Your task to perform on an android device: turn pop-ups off in chrome Image 0: 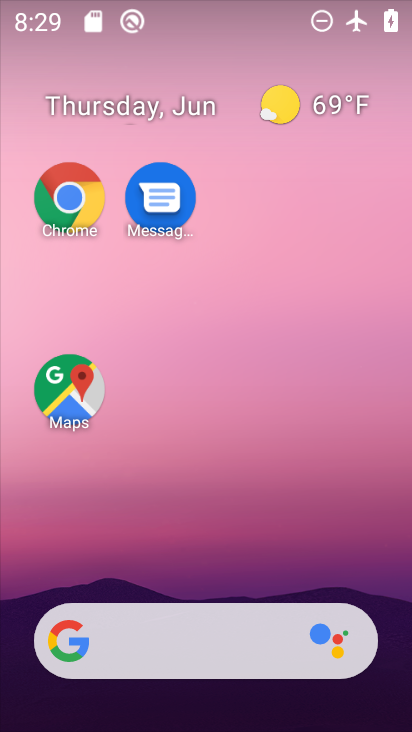
Step 0: drag from (230, 593) to (202, 114)
Your task to perform on an android device: turn pop-ups off in chrome Image 1: 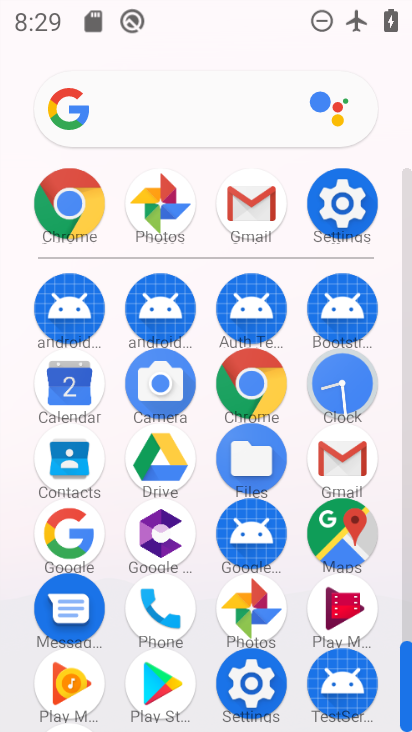
Step 1: click (49, 199)
Your task to perform on an android device: turn pop-ups off in chrome Image 2: 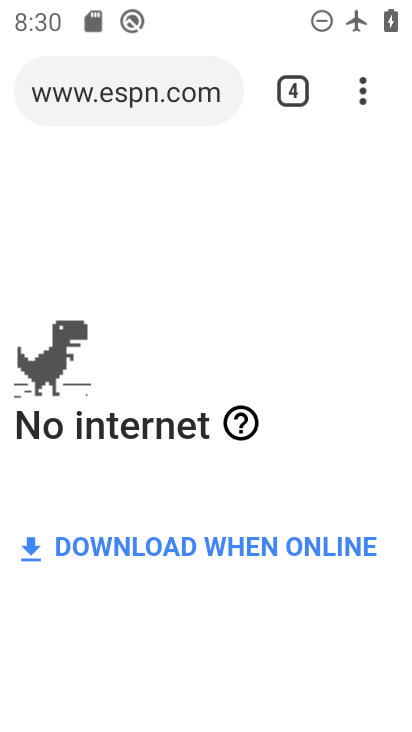
Step 2: click (367, 99)
Your task to perform on an android device: turn pop-ups off in chrome Image 3: 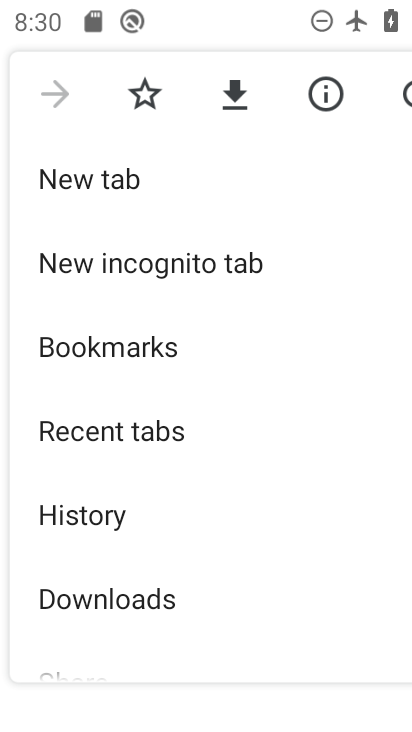
Step 3: drag from (190, 573) to (177, 163)
Your task to perform on an android device: turn pop-ups off in chrome Image 4: 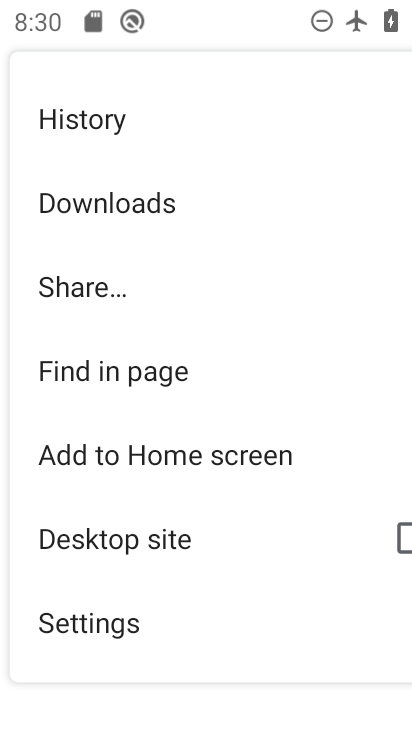
Step 4: click (97, 625)
Your task to perform on an android device: turn pop-ups off in chrome Image 5: 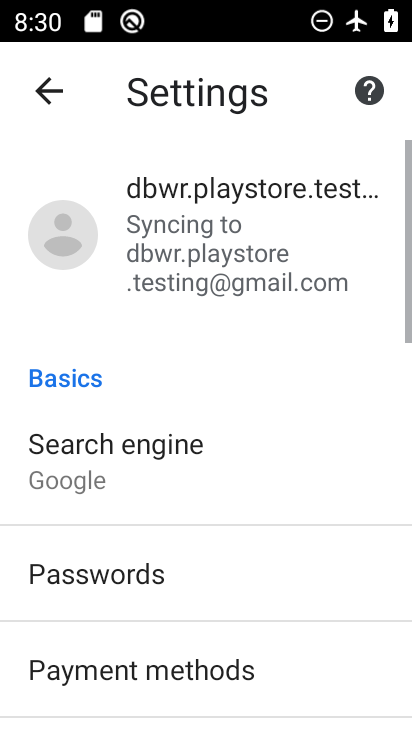
Step 5: drag from (97, 625) to (107, 64)
Your task to perform on an android device: turn pop-ups off in chrome Image 6: 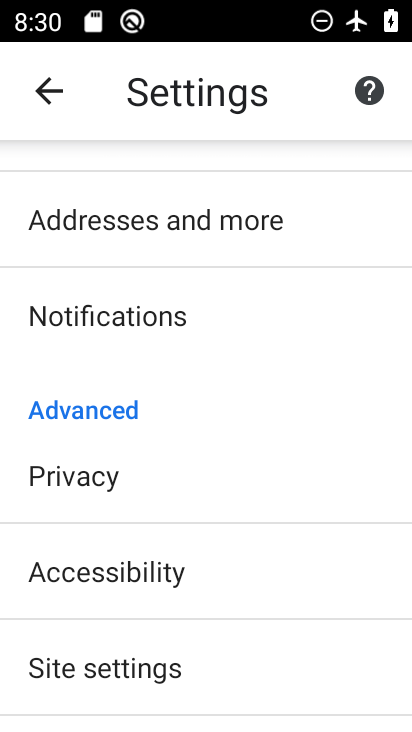
Step 6: click (108, 672)
Your task to perform on an android device: turn pop-ups off in chrome Image 7: 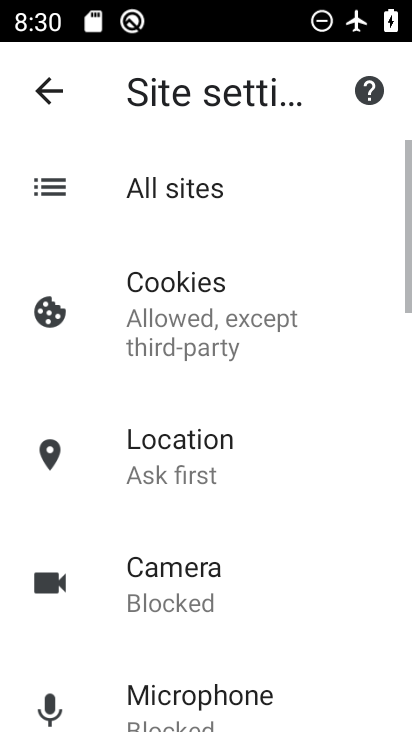
Step 7: drag from (108, 672) to (75, 363)
Your task to perform on an android device: turn pop-ups off in chrome Image 8: 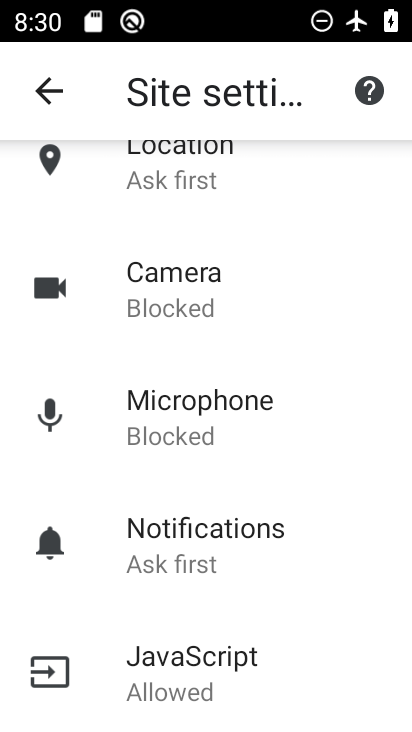
Step 8: drag from (140, 690) to (29, 216)
Your task to perform on an android device: turn pop-ups off in chrome Image 9: 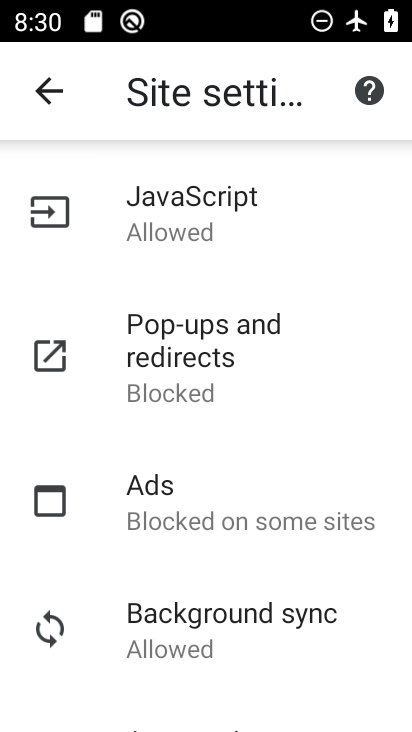
Step 9: click (202, 346)
Your task to perform on an android device: turn pop-ups off in chrome Image 10: 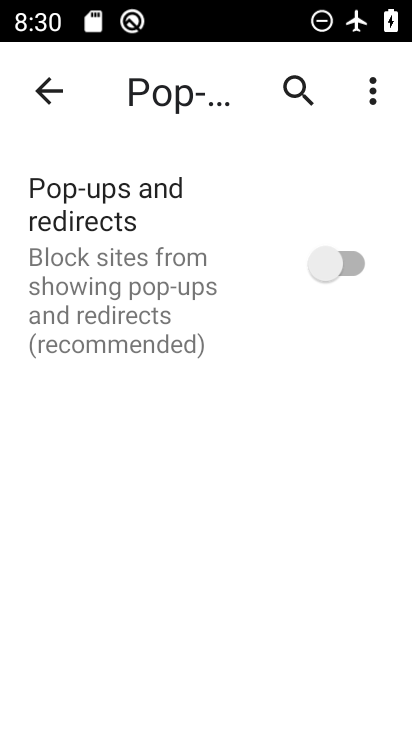
Step 10: task complete